Your task to perform on an android device: Play the last video I watched on Youtube Image 0: 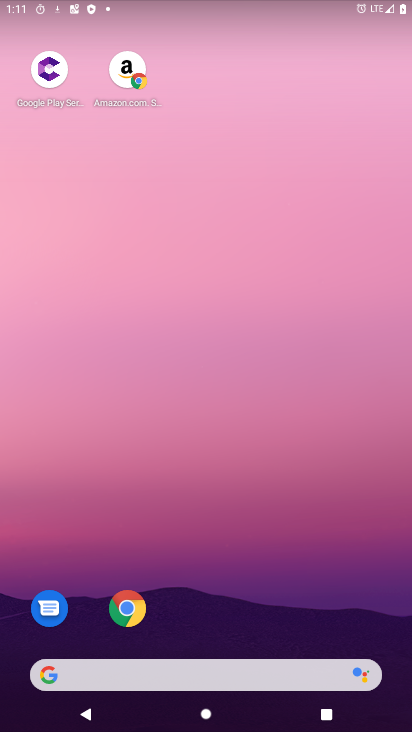
Step 0: drag from (264, 691) to (213, 179)
Your task to perform on an android device: Play the last video I watched on Youtube Image 1: 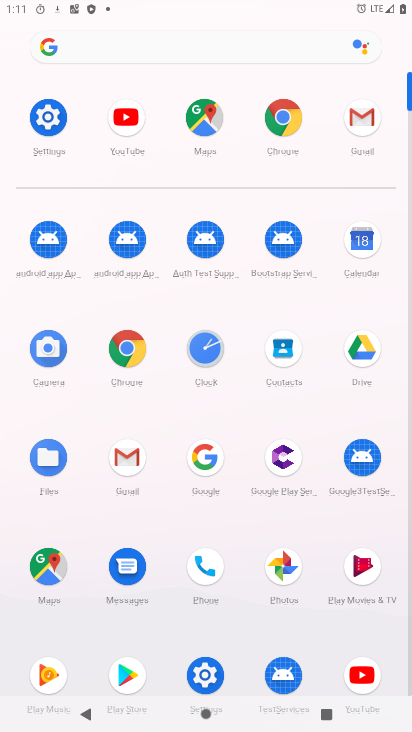
Step 1: click (358, 686)
Your task to perform on an android device: Play the last video I watched on Youtube Image 2: 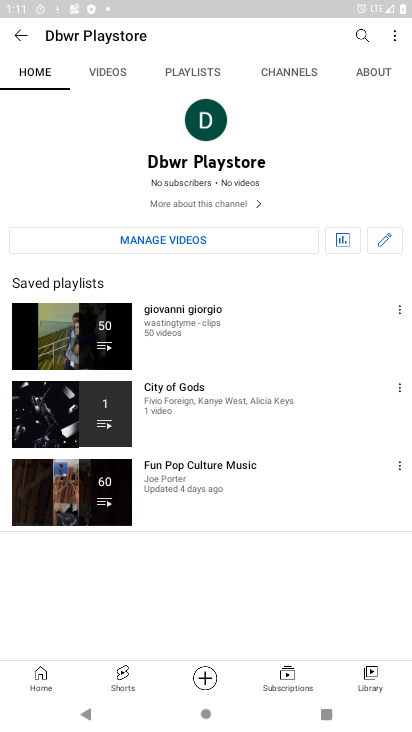
Step 2: click (374, 669)
Your task to perform on an android device: Play the last video I watched on Youtube Image 3: 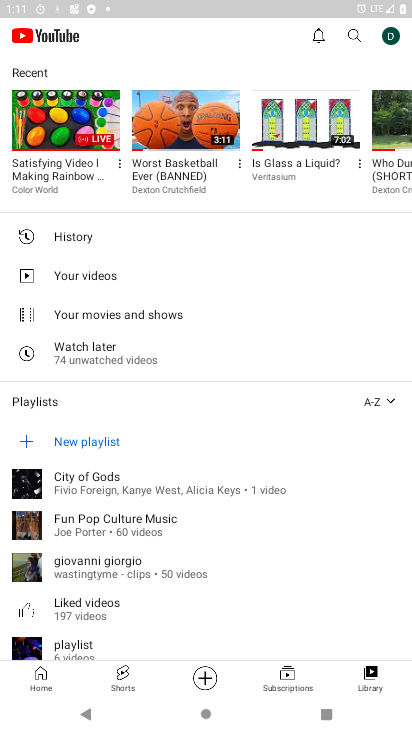
Step 3: click (65, 123)
Your task to perform on an android device: Play the last video I watched on Youtube Image 4: 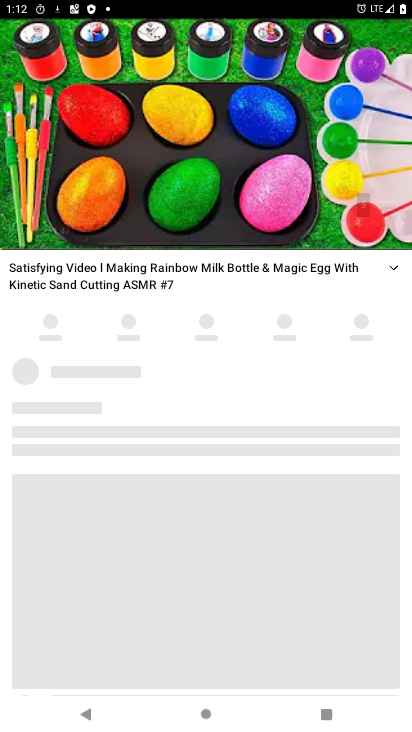
Step 4: click (189, 175)
Your task to perform on an android device: Play the last video I watched on Youtube Image 5: 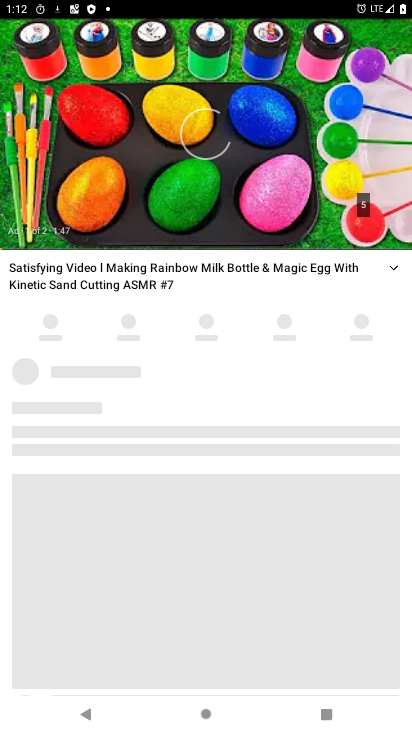
Step 5: click (207, 163)
Your task to perform on an android device: Play the last video I watched on Youtube Image 6: 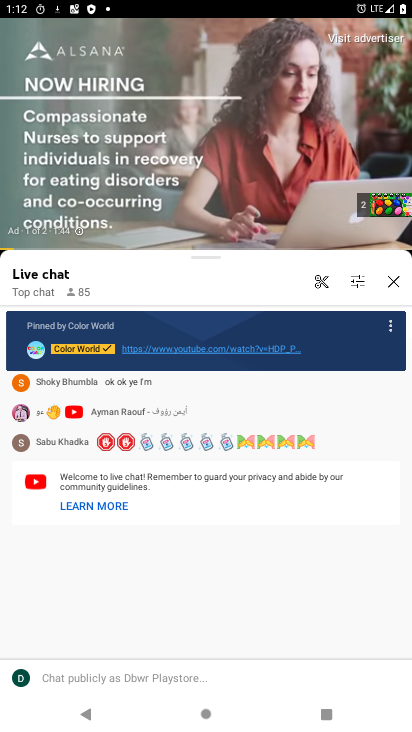
Step 6: click (398, 274)
Your task to perform on an android device: Play the last video I watched on Youtube Image 7: 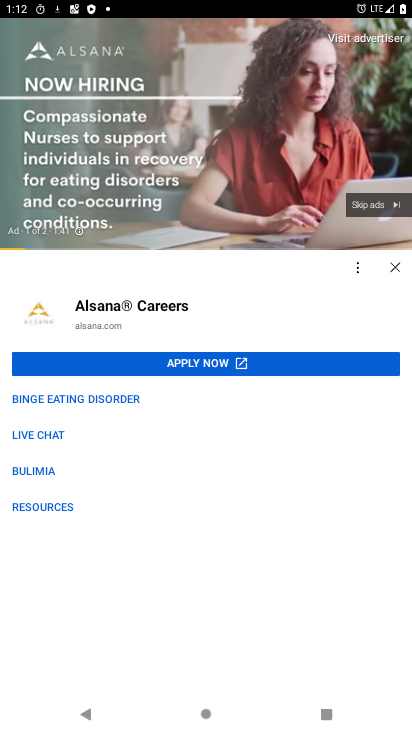
Step 7: task complete